Your task to perform on an android device: turn off location history Image 0: 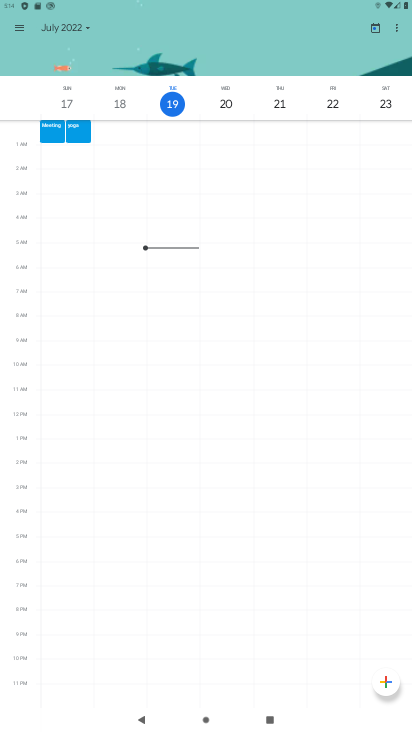
Step 0: press home button
Your task to perform on an android device: turn off location history Image 1: 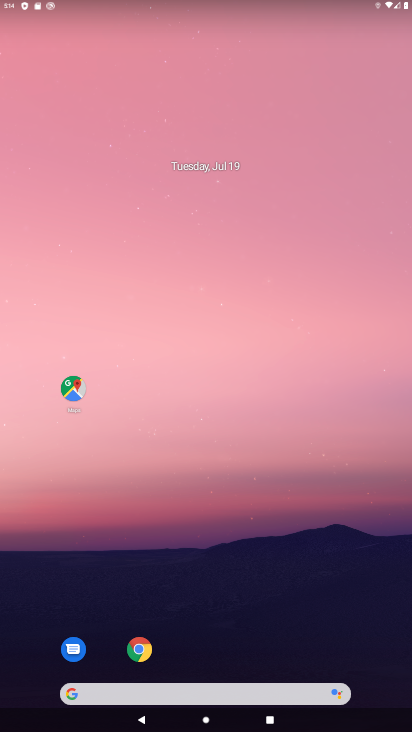
Step 1: drag from (292, 577) to (16, 5)
Your task to perform on an android device: turn off location history Image 2: 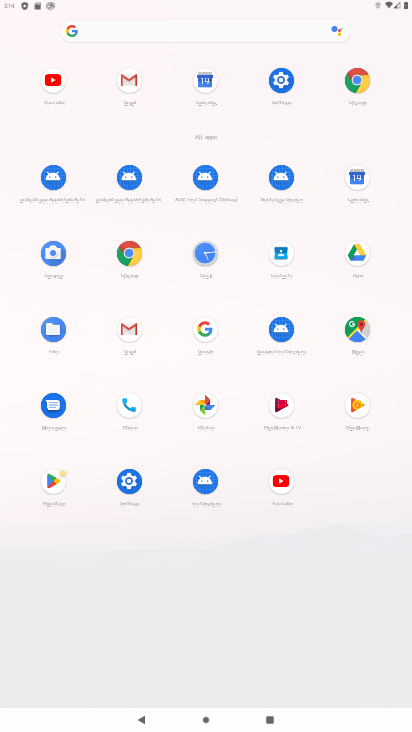
Step 2: click (276, 74)
Your task to perform on an android device: turn off location history Image 3: 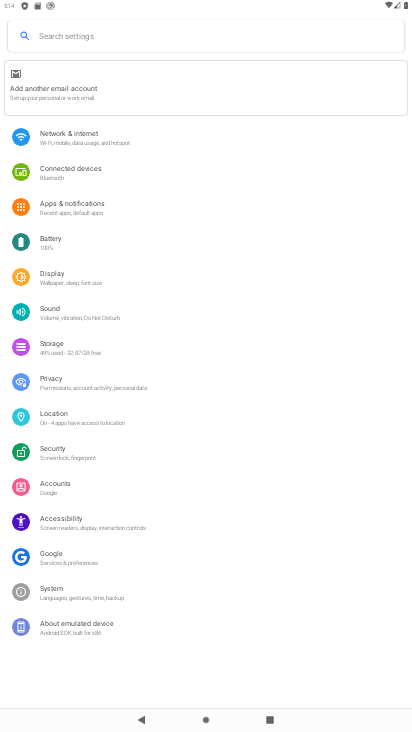
Step 3: click (70, 417)
Your task to perform on an android device: turn off location history Image 4: 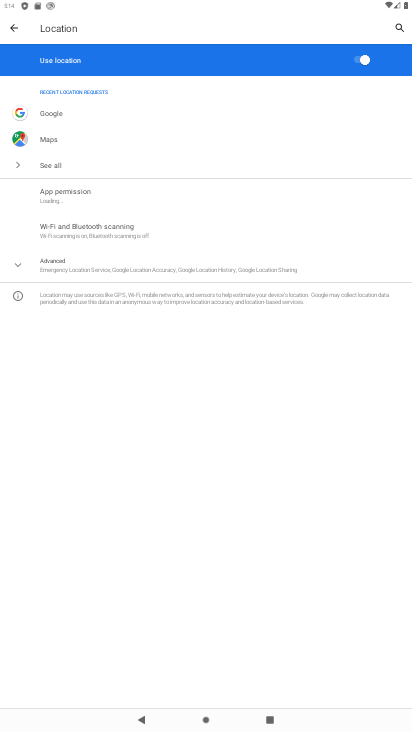
Step 4: click (370, 63)
Your task to perform on an android device: turn off location history Image 5: 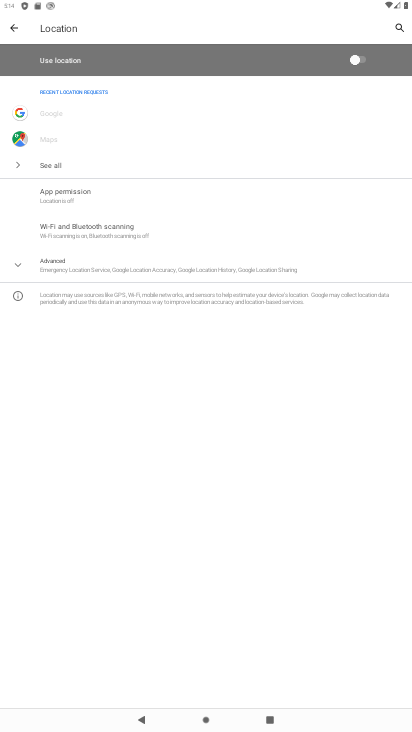
Step 5: click (370, 64)
Your task to perform on an android device: turn off location history Image 6: 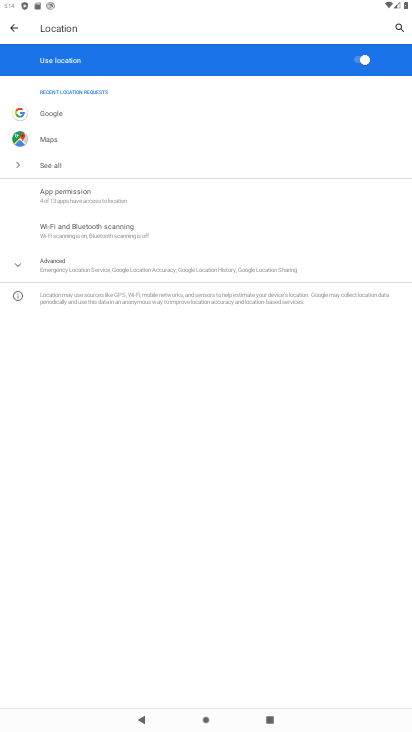
Step 6: click (98, 265)
Your task to perform on an android device: turn off location history Image 7: 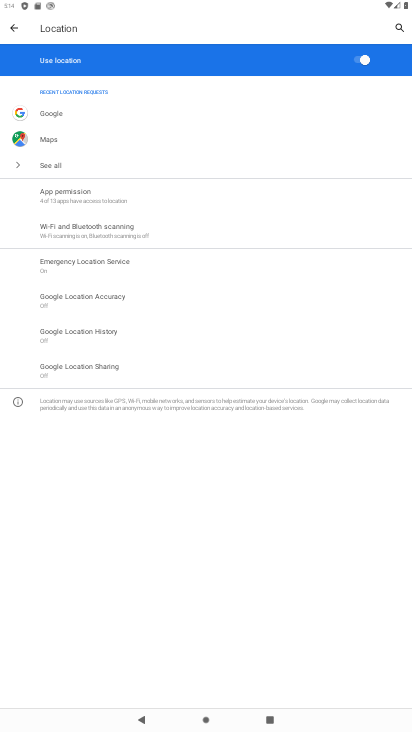
Step 7: click (110, 332)
Your task to perform on an android device: turn off location history Image 8: 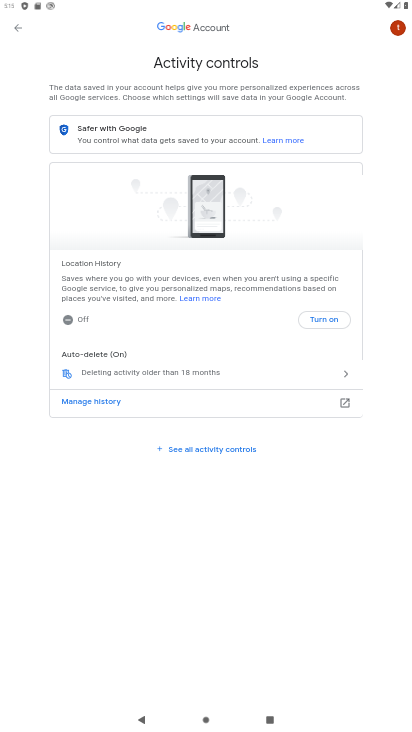
Step 8: click (336, 332)
Your task to perform on an android device: turn off location history Image 9: 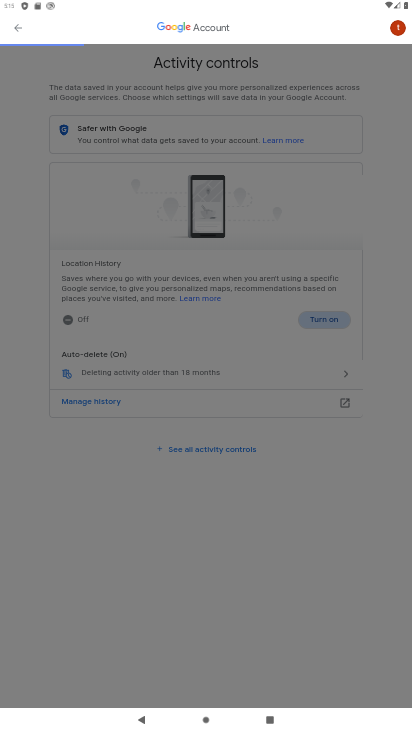
Step 9: task complete